Your task to perform on an android device: Go to calendar. Show me events next week Image 0: 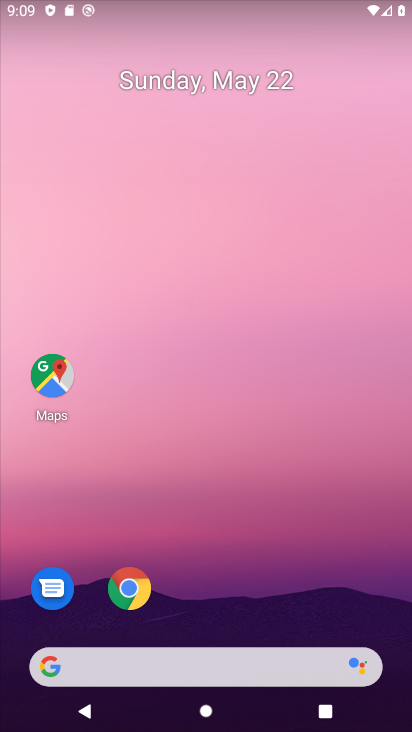
Step 0: drag from (218, 562) to (226, 59)
Your task to perform on an android device: Go to calendar. Show me events next week Image 1: 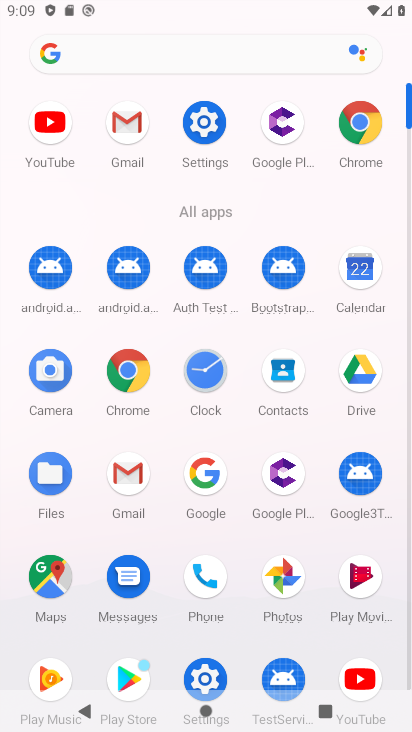
Step 1: drag from (255, 218) to (262, 16)
Your task to perform on an android device: Go to calendar. Show me events next week Image 2: 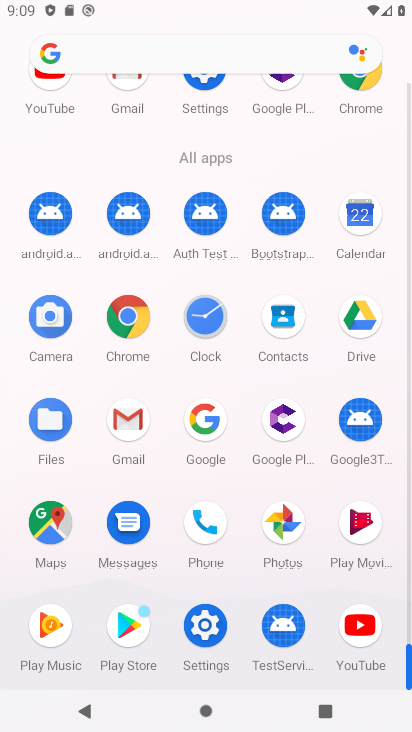
Step 2: click (352, 213)
Your task to perform on an android device: Go to calendar. Show me events next week Image 3: 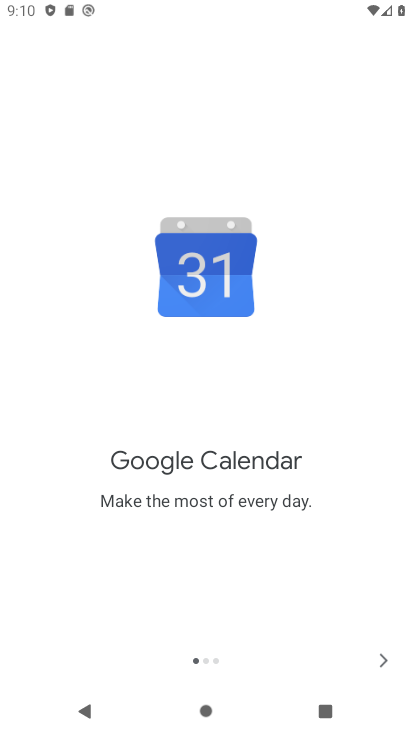
Step 3: click (383, 655)
Your task to perform on an android device: Go to calendar. Show me events next week Image 4: 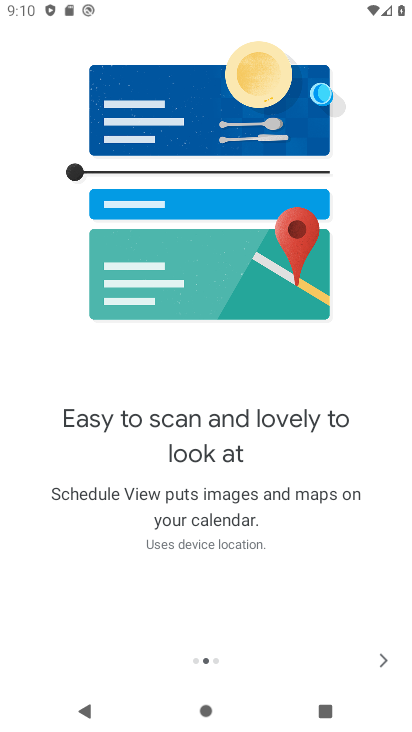
Step 4: click (383, 655)
Your task to perform on an android device: Go to calendar. Show me events next week Image 5: 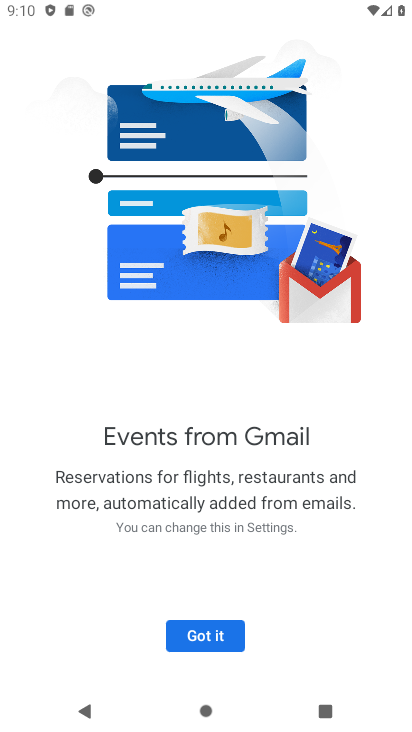
Step 5: click (213, 631)
Your task to perform on an android device: Go to calendar. Show me events next week Image 6: 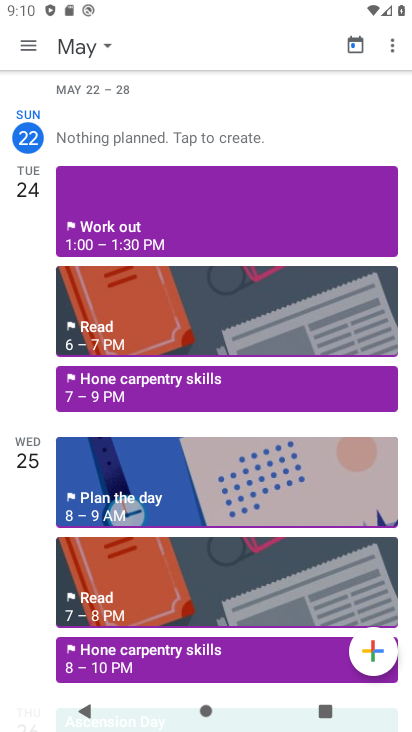
Step 6: click (205, 629)
Your task to perform on an android device: Go to calendar. Show me events next week Image 7: 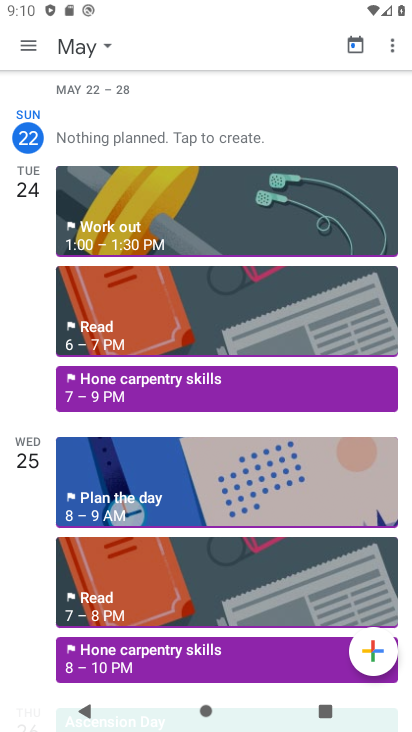
Step 7: task complete